Your task to perform on an android device: turn on sleep mode Image 0: 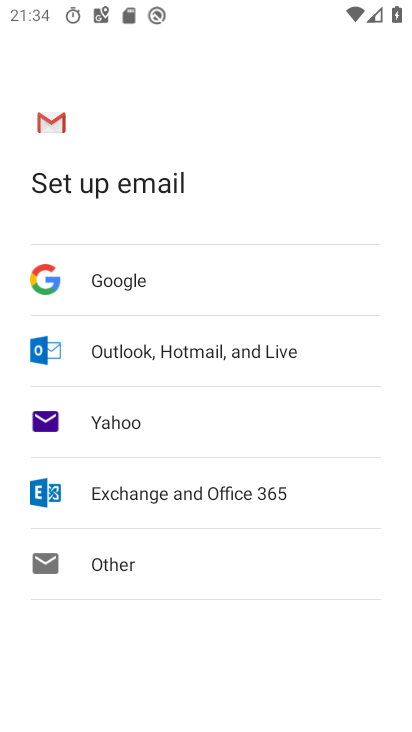
Step 0: press home button
Your task to perform on an android device: turn on sleep mode Image 1: 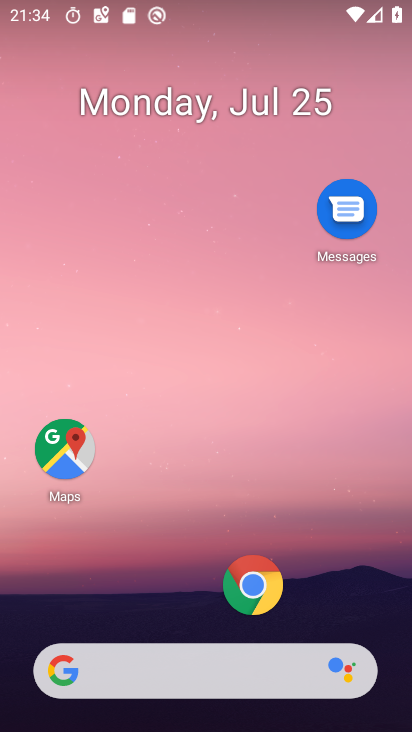
Step 1: drag from (184, 673) to (269, 115)
Your task to perform on an android device: turn on sleep mode Image 2: 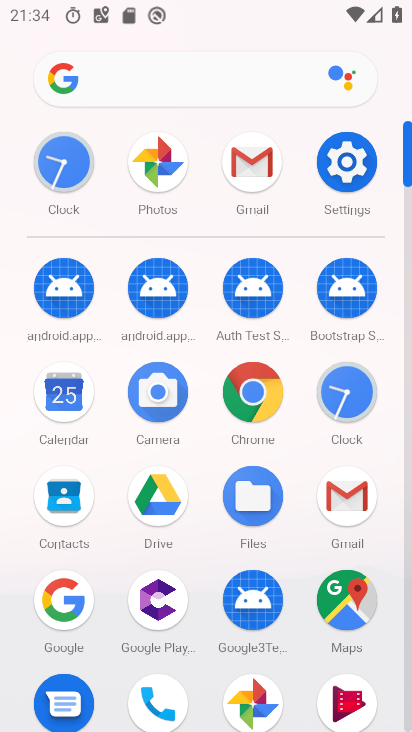
Step 2: click (347, 163)
Your task to perform on an android device: turn on sleep mode Image 3: 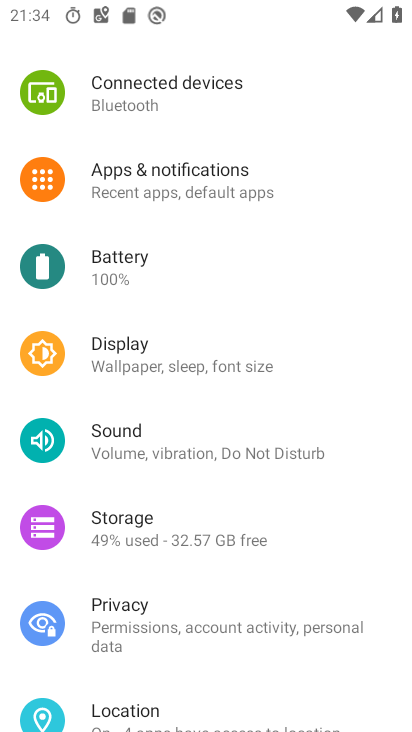
Step 3: click (146, 346)
Your task to perform on an android device: turn on sleep mode Image 4: 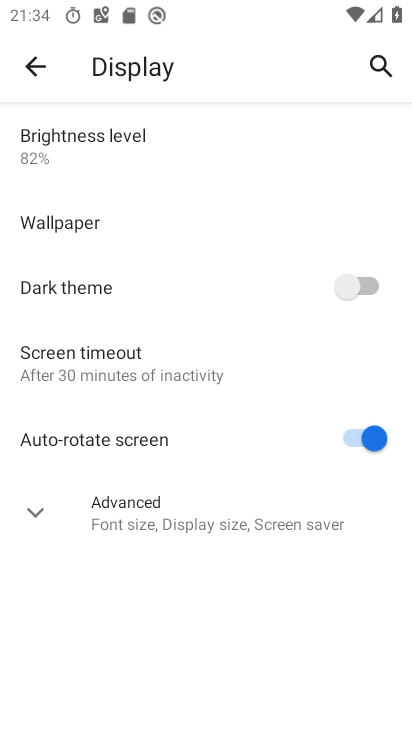
Step 4: task complete